Your task to perform on an android device: turn on location history Image 0: 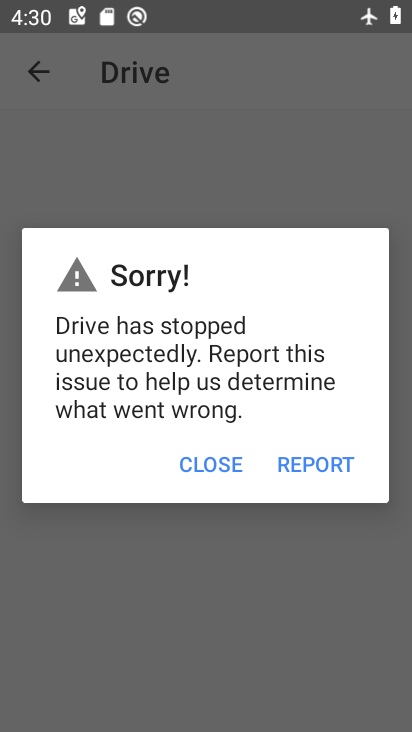
Step 0: press home button
Your task to perform on an android device: turn on location history Image 1: 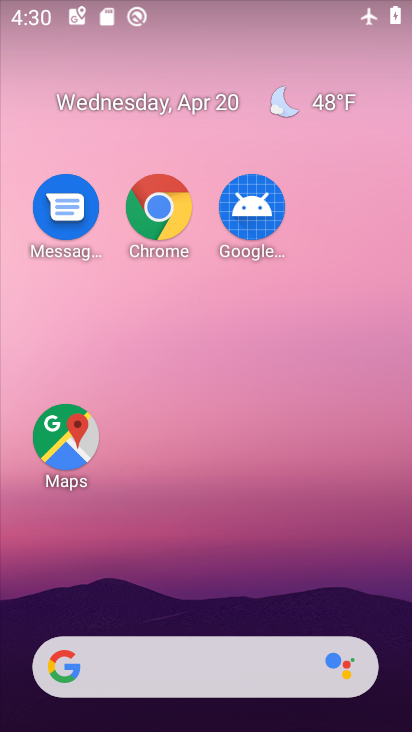
Step 1: drag from (230, 405) to (230, 234)
Your task to perform on an android device: turn on location history Image 2: 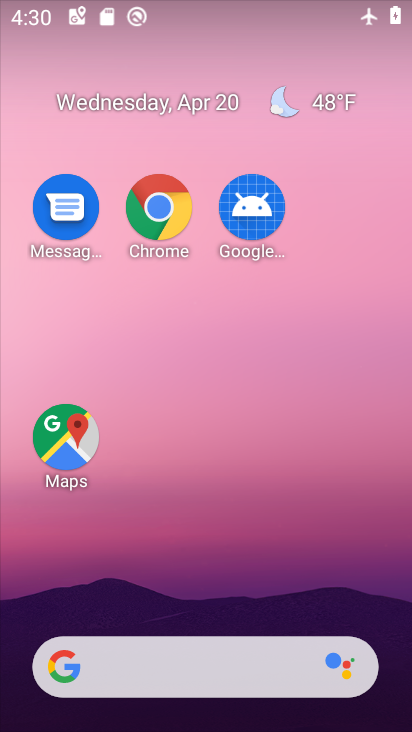
Step 2: drag from (277, 387) to (284, 39)
Your task to perform on an android device: turn on location history Image 3: 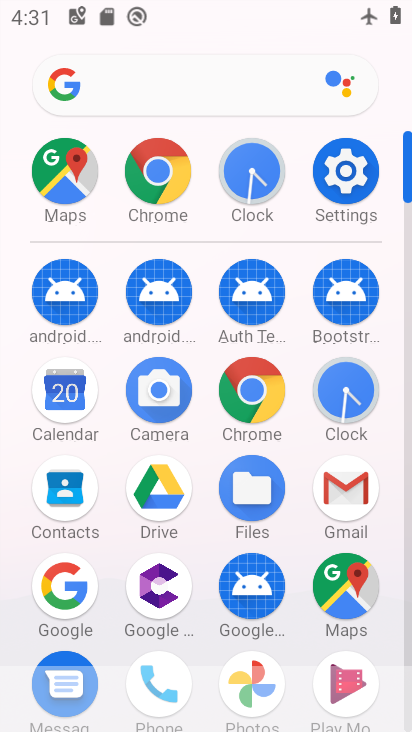
Step 3: click (366, 185)
Your task to perform on an android device: turn on location history Image 4: 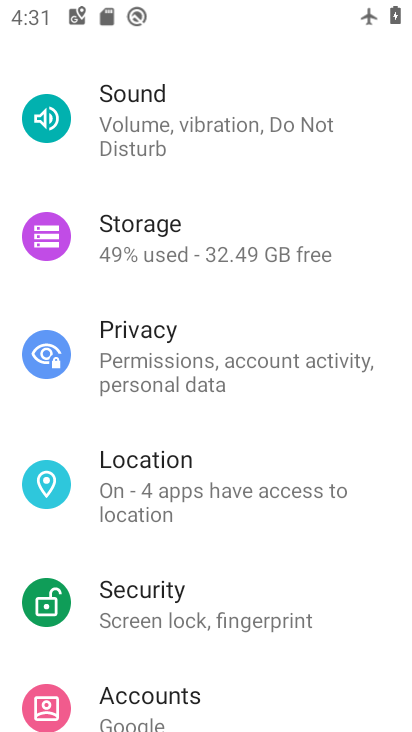
Step 4: click (242, 525)
Your task to perform on an android device: turn on location history Image 5: 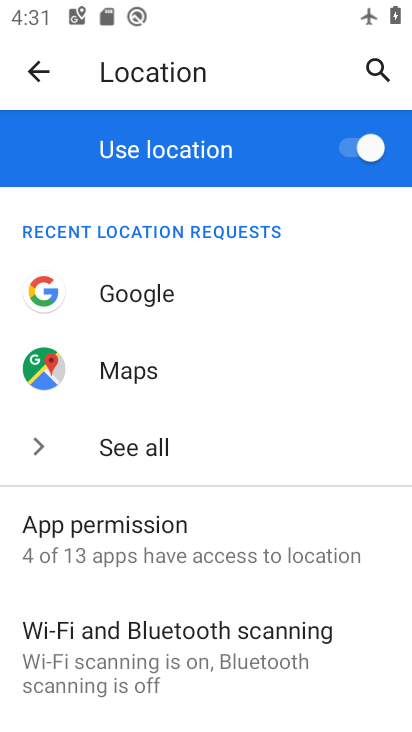
Step 5: drag from (185, 560) to (252, 215)
Your task to perform on an android device: turn on location history Image 6: 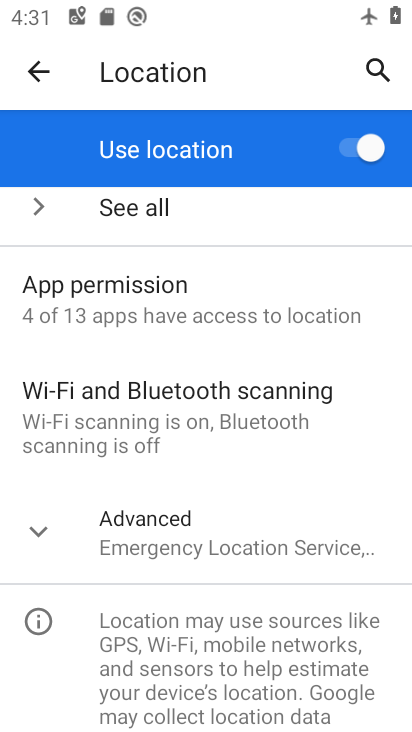
Step 6: click (258, 548)
Your task to perform on an android device: turn on location history Image 7: 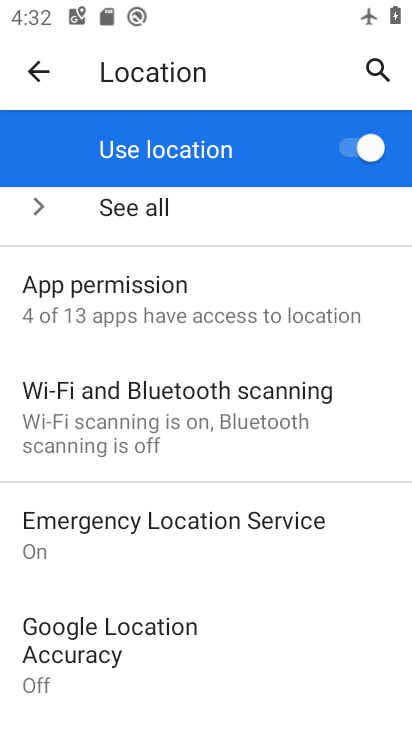
Step 7: drag from (253, 618) to (236, 345)
Your task to perform on an android device: turn on location history Image 8: 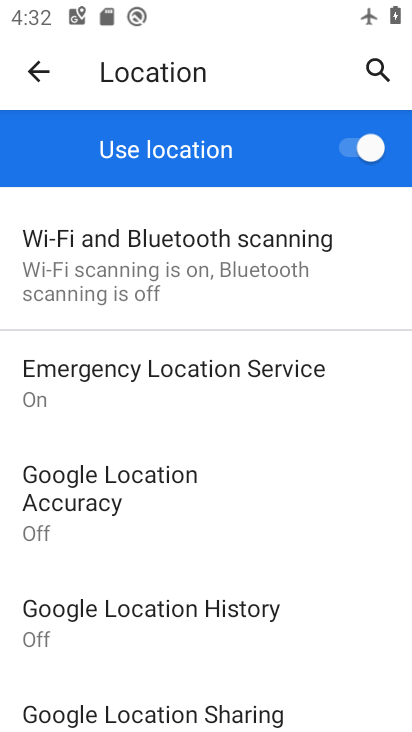
Step 8: click (242, 624)
Your task to perform on an android device: turn on location history Image 9: 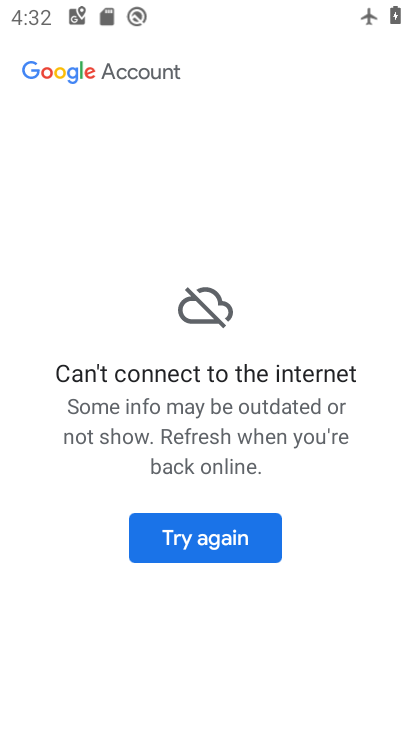
Step 9: task complete